Your task to perform on an android device: add a label to a message in the gmail app Image 0: 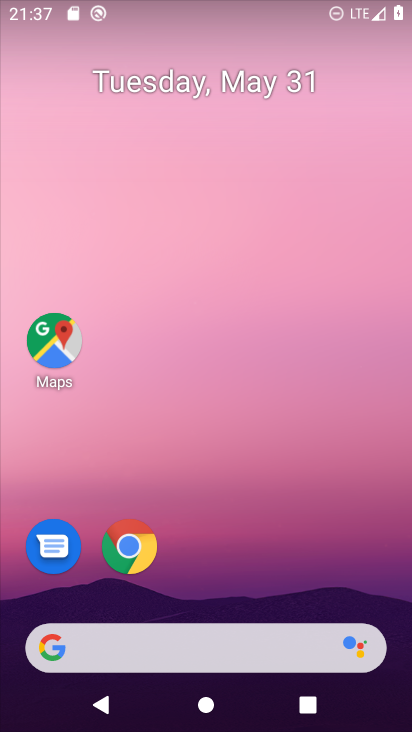
Step 0: drag from (382, 706) to (342, 165)
Your task to perform on an android device: add a label to a message in the gmail app Image 1: 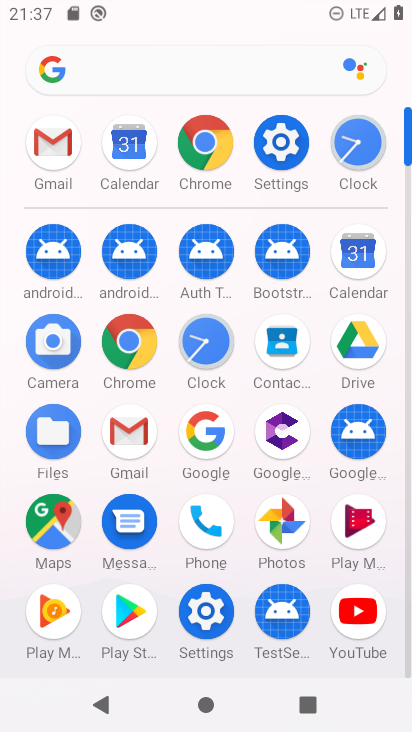
Step 1: click (49, 144)
Your task to perform on an android device: add a label to a message in the gmail app Image 2: 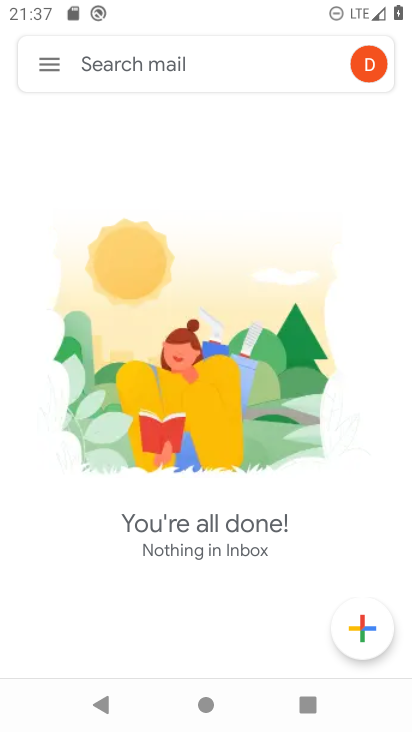
Step 2: click (46, 65)
Your task to perform on an android device: add a label to a message in the gmail app Image 3: 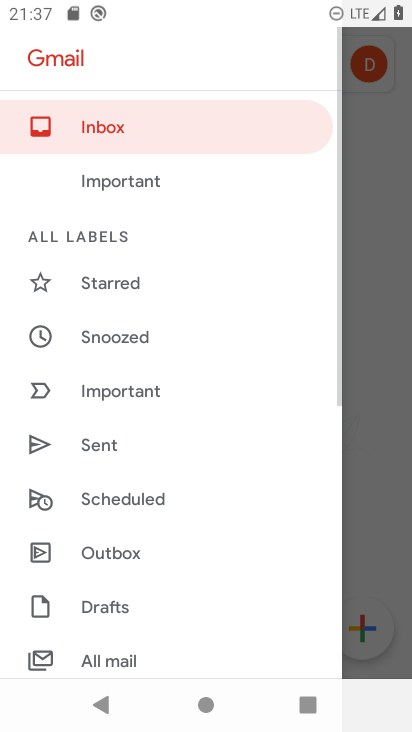
Step 3: click (113, 119)
Your task to perform on an android device: add a label to a message in the gmail app Image 4: 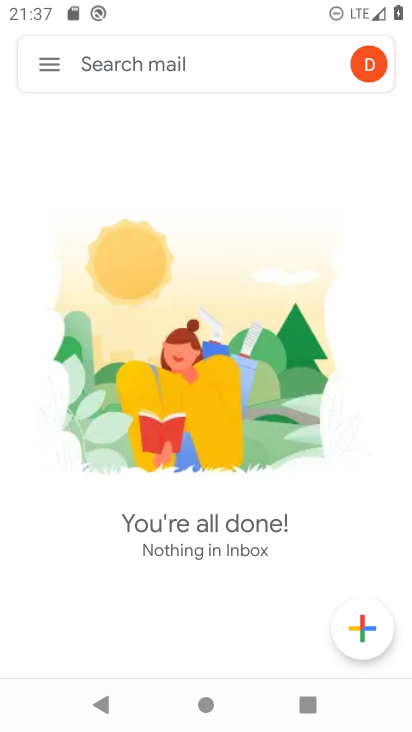
Step 4: task complete